Your task to perform on an android device: open app "Etsy: Buy & Sell Unique Items" (install if not already installed) and enter user name: "camp@inbox.com" and password: "unrelated" Image 0: 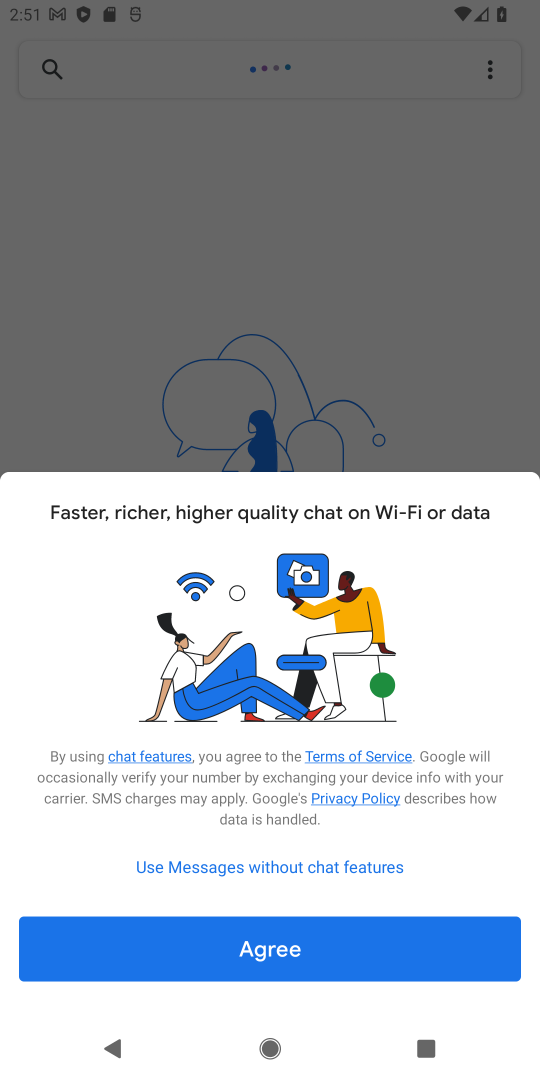
Step 0: press home button
Your task to perform on an android device: open app "Etsy: Buy & Sell Unique Items" (install if not already installed) and enter user name: "camp@inbox.com" and password: "unrelated" Image 1: 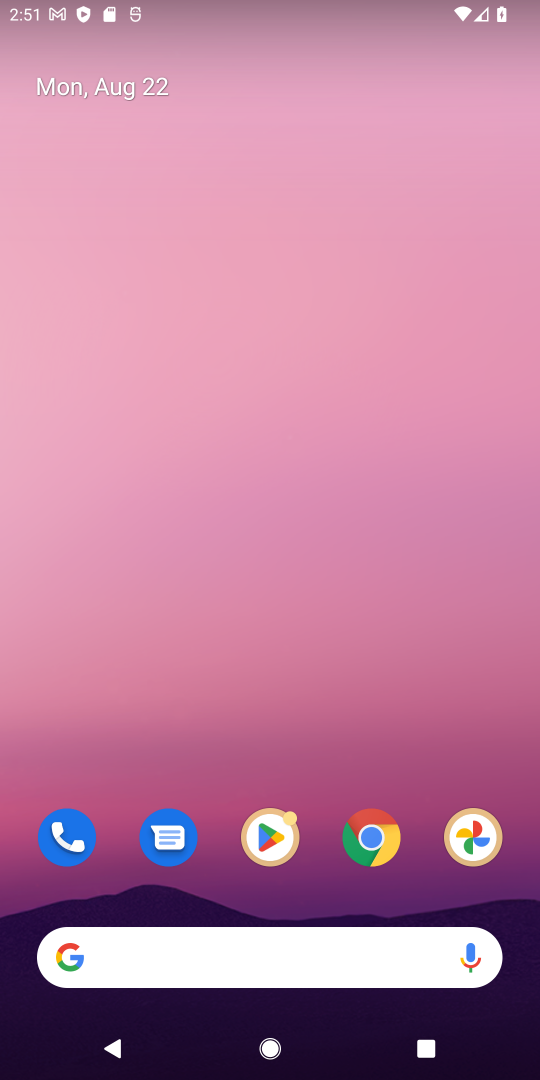
Step 1: drag from (448, 874) to (251, 36)
Your task to perform on an android device: open app "Etsy: Buy & Sell Unique Items" (install if not already installed) and enter user name: "camp@inbox.com" and password: "unrelated" Image 2: 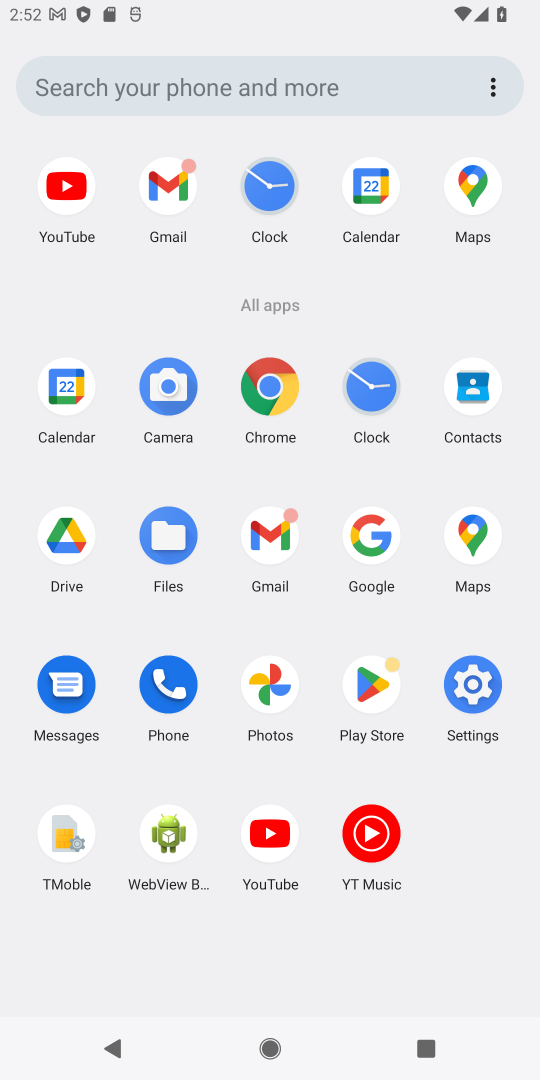
Step 2: click (366, 693)
Your task to perform on an android device: open app "Etsy: Buy & Sell Unique Items" (install if not already installed) and enter user name: "camp@inbox.com" and password: "unrelated" Image 3: 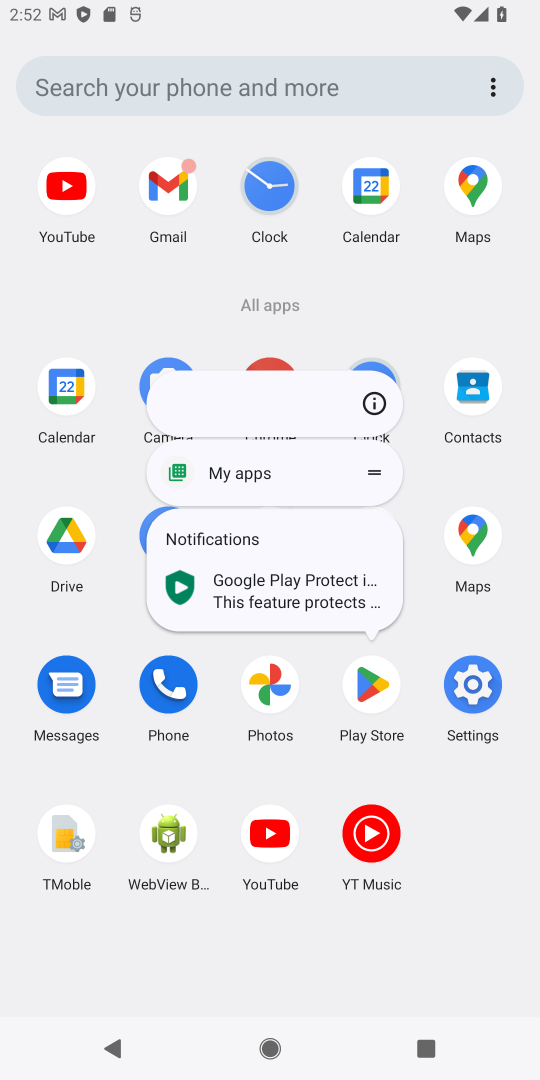
Step 3: click (366, 693)
Your task to perform on an android device: open app "Etsy: Buy & Sell Unique Items" (install if not already installed) and enter user name: "camp@inbox.com" and password: "unrelated" Image 4: 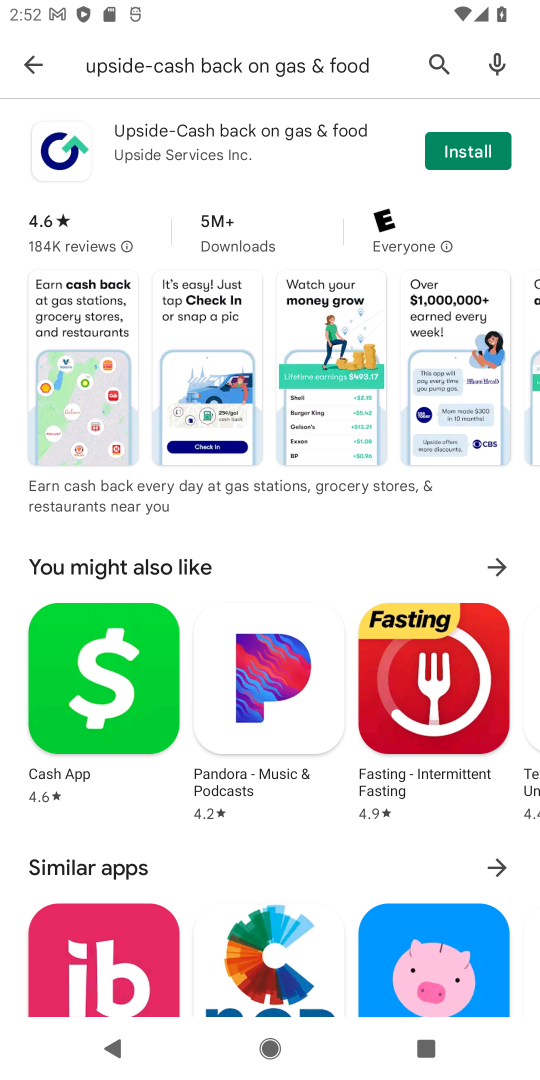
Step 4: press back button
Your task to perform on an android device: open app "Etsy: Buy & Sell Unique Items" (install if not already installed) and enter user name: "camp@inbox.com" and password: "unrelated" Image 5: 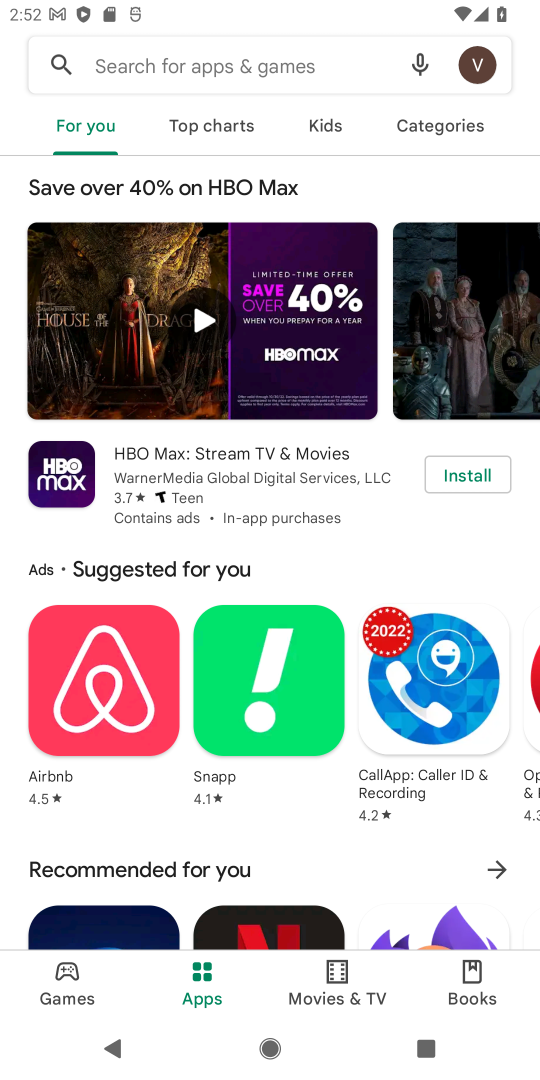
Step 5: click (206, 71)
Your task to perform on an android device: open app "Etsy: Buy & Sell Unique Items" (install if not already installed) and enter user name: "camp@inbox.com" and password: "unrelated" Image 6: 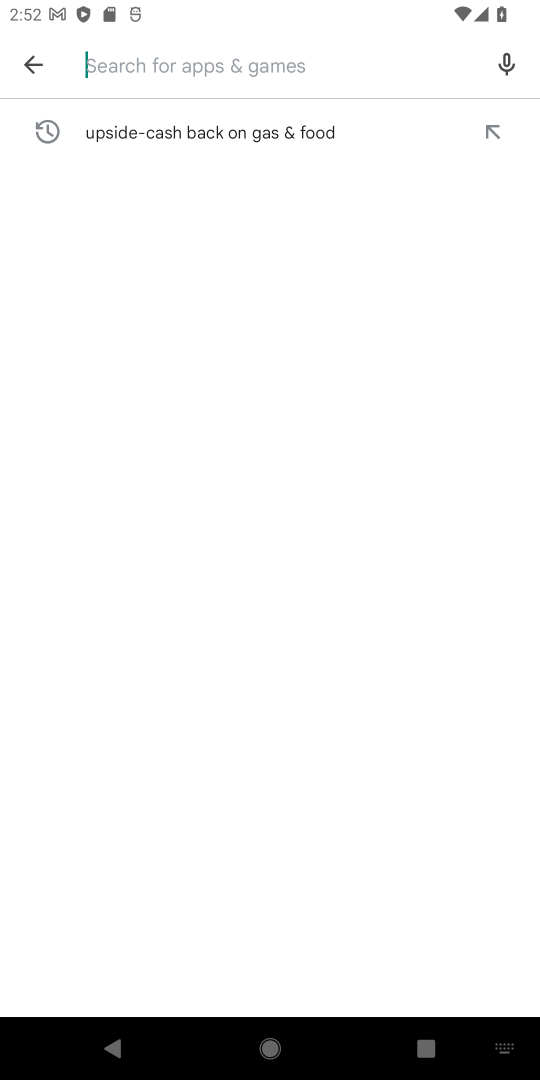
Step 6: type "Etsy: Buy & Sell Unique Items"
Your task to perform on an android device: open app "Etsy: Buy & Sell Unique Items" (install if not already installed) and enter user name: "camp@inbox.com" and password: "unrelated" Image 7: 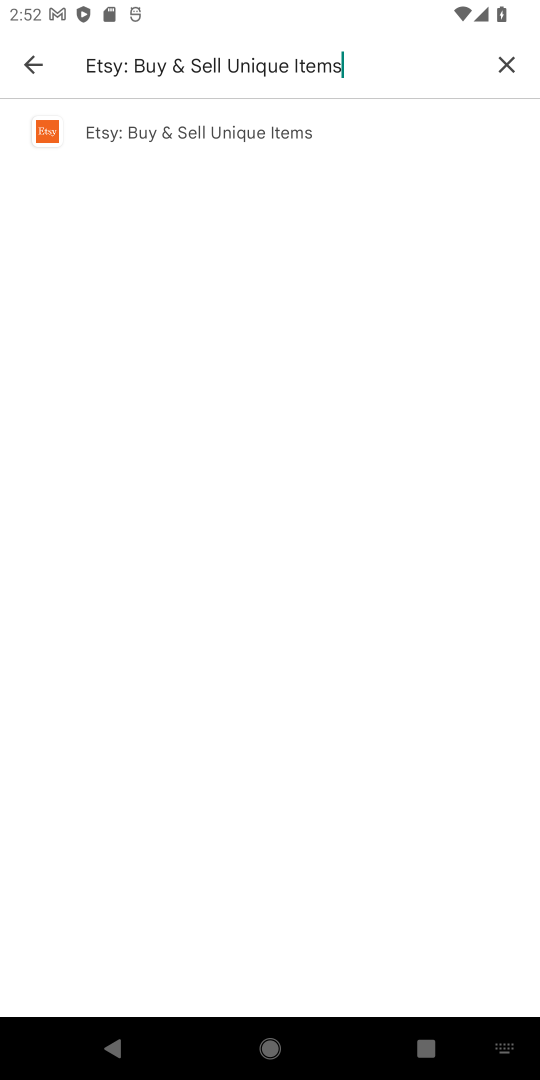
Step 7: click (228, 132)
Your task to perform on an android device: open app "Etsy: Buy & Sell Unique Items" (install if not already installed) and enter user name: "camp@inbox.com" and password: "unrelated" Image 8: 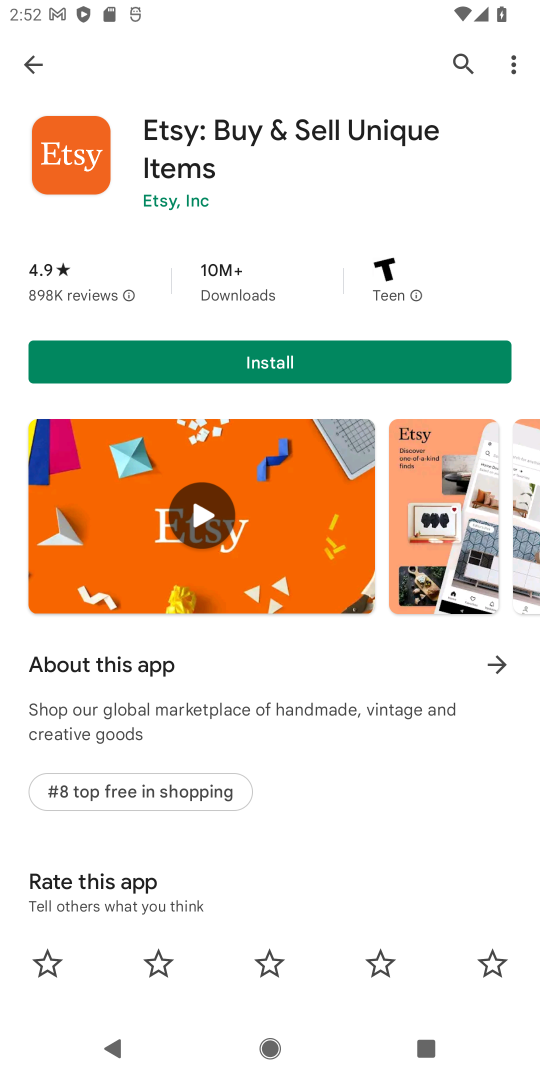
Step 8: task complete